Your task to perform on an android device: turn off javascript in the chrome app Image 0: 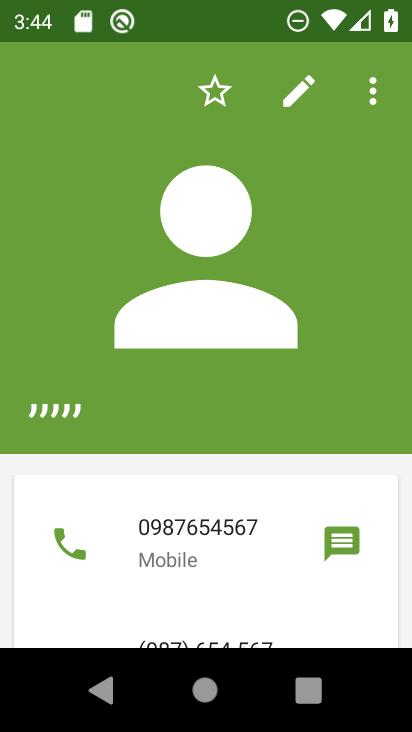
Step 0: press home button
Your task to perform on an android device: turn off javascript in the chrome app Image 1: 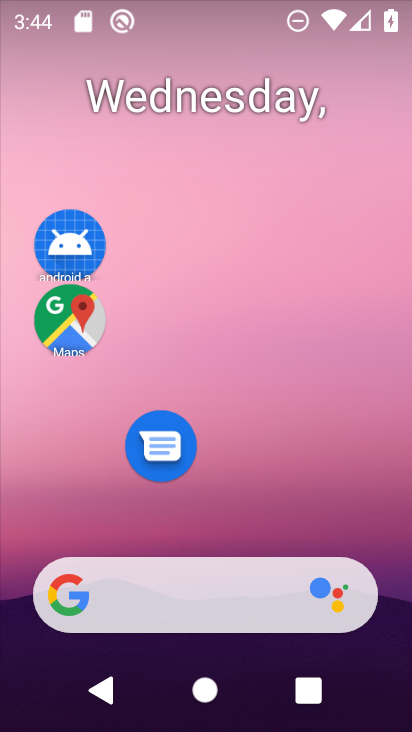
Step 1: drag from (261, 476) to (298, 94)
Your task to perform on an android device: turn off javascript in the chrome app Image 2: 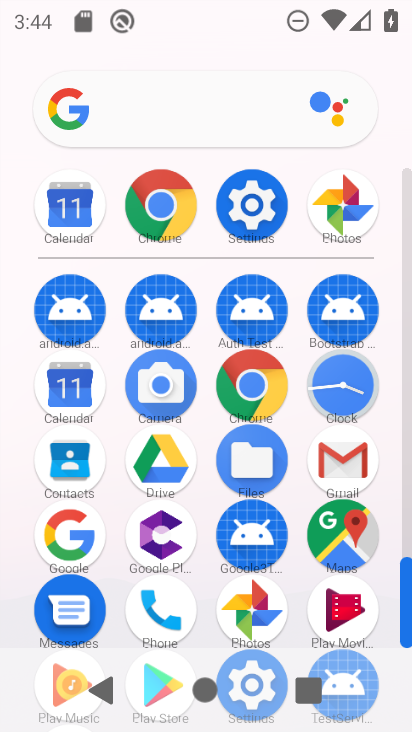
Step 2: click (267, 187)
Your task to perform on an android device: turn off javascript in the chrome app Image 3: 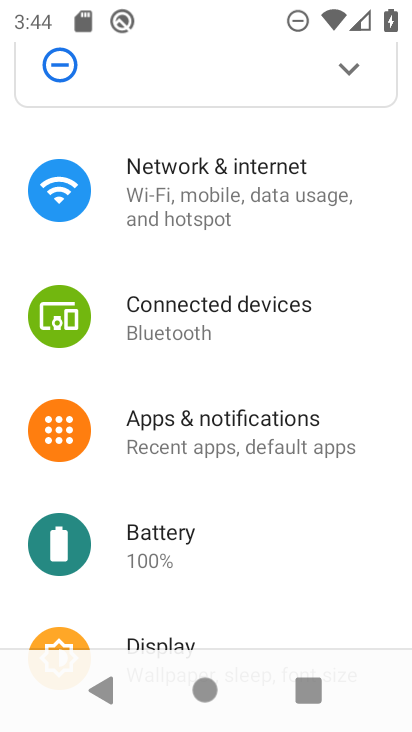
Step 3: press home button
Your task to perform on an android device: turn off javascript in the chrome app Image 4: 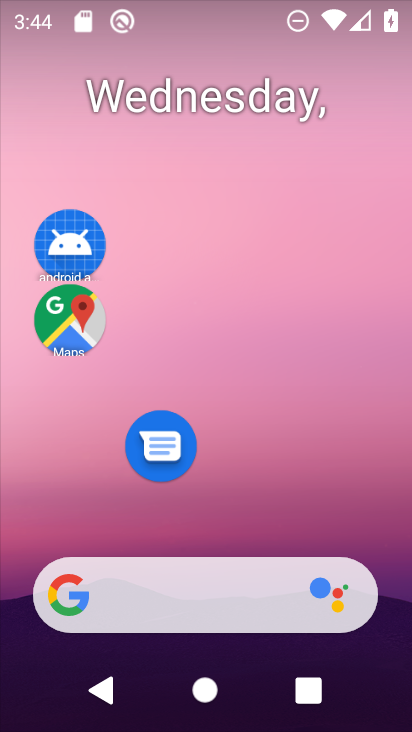
Step 4: drag from (297, 568) to (329, 347)
Your task to perform on an android device: turn off javascript in the chrome app Image 5: 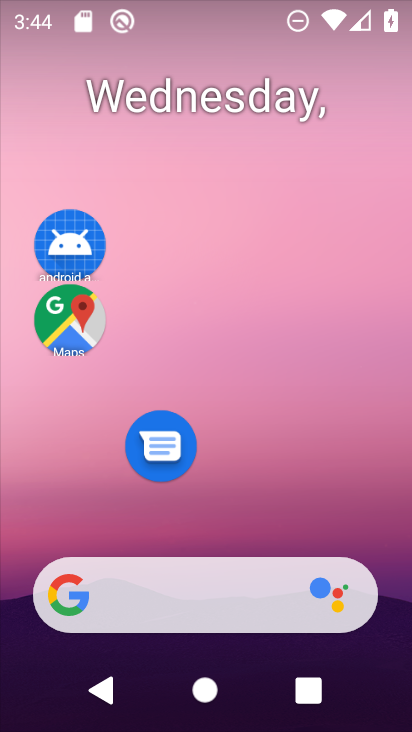
Step 5: drag from (267, 473) to (302, 49)
Your task to perform on an android device: turn off javascript in the chrome app Image 6: 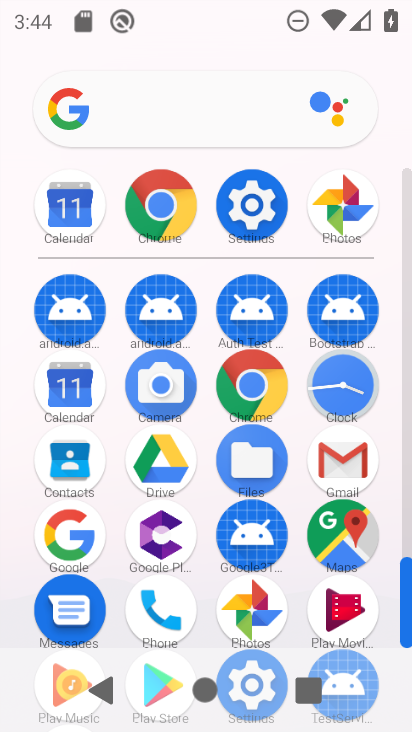
Step 6: click (157, 178)
Your task to perform on an android device: turn off javascript in the chrome app Image 7: 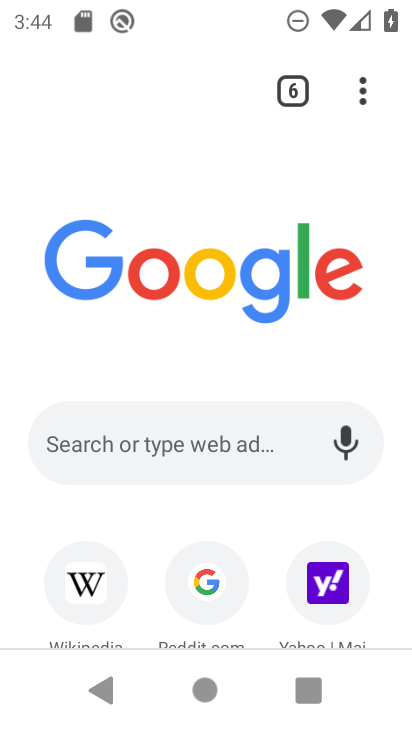
Step 7: click (351, 98)
Your task to perform on an android device: turn off javascript in the chrome app Image 8: 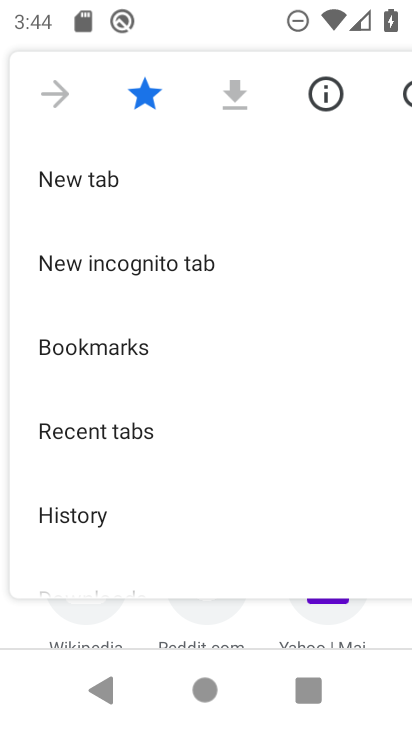
Step 8: drag from (142, 502) to (183, 304)
Your task to perform on an android device: turn off javascript in the chrome app Image 9: 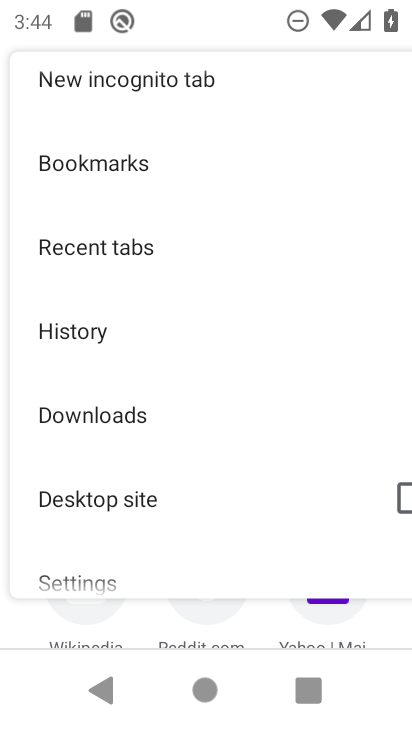
Step 9: click (150, 568)
Your task to perform on an android device: turn off javascript in the chrome app Image 10: 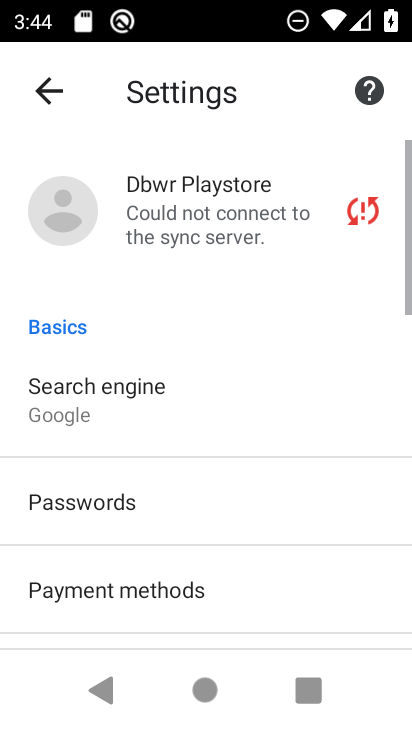
Step 10: drag from (150, 568) to (183, 255)
Your task to perform on an android device: turn off javascript in the chrome app Image 11: 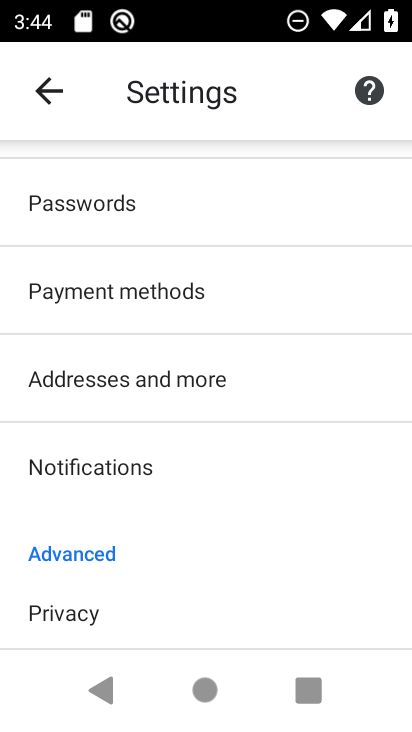
Step 11: drag from (149, 494) to (188, 179)
Your task to perform on an android device: turn off javascript in the chrome app Image 12: 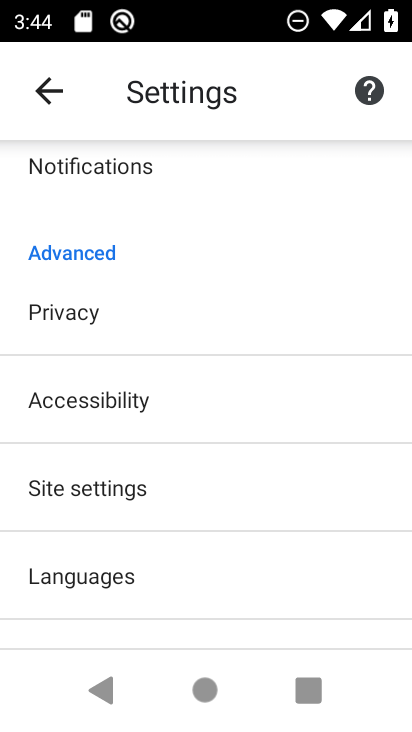
Step 12: click (104, 457)
Your task to perform on an android device: turn off javascript in the chrome app Image 13: 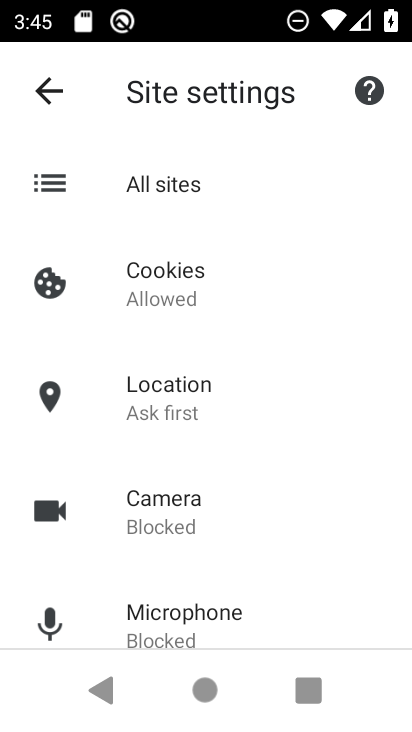
Step 13: drag from (135, 608) to (199, 432)
Your task to perform on an android device: turn off javascript in the chrome app Image 14: 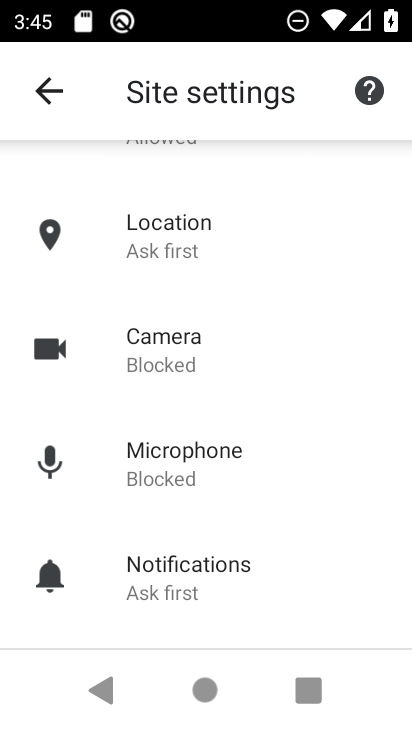
Step 14: drag from (218, 641) to (218, 372)
Your task to perform on an android device: turn off javascript in the chrome app Image 15: 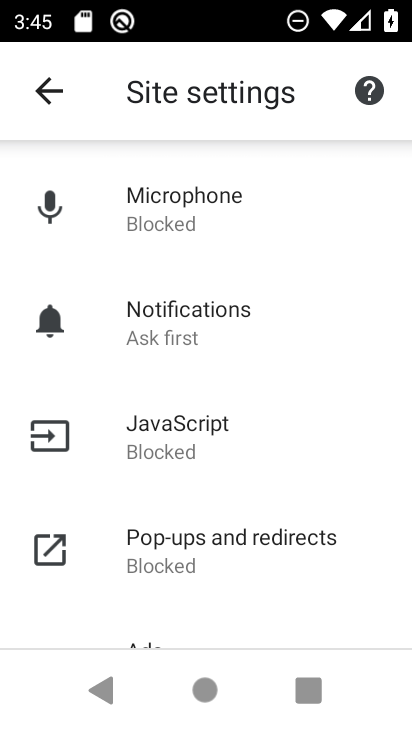
Step 15: click (196, 459)
Your task to perform on an android device: turn off javascript in the chrome app Image 16: 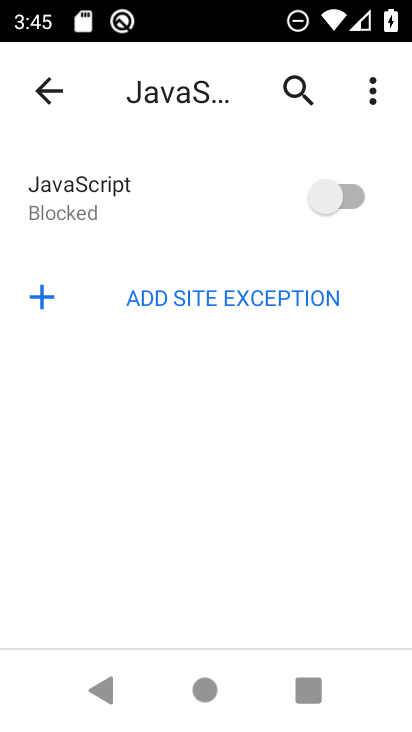
Step 16: task complete